Your task to perform on an android device: Go to display settings Image 0: 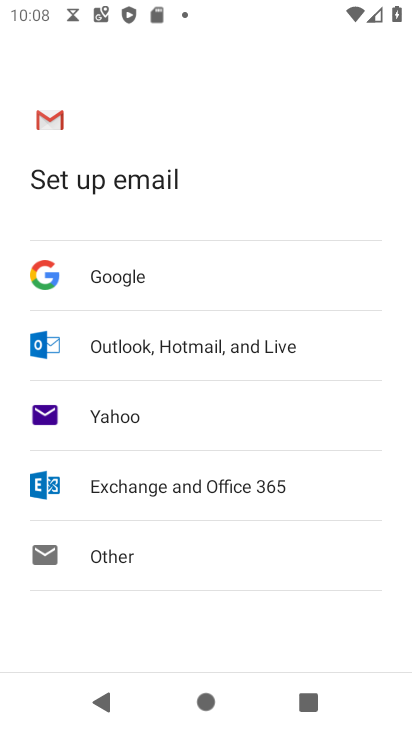
Step 0: press home button
Your task to perform on an android device: Go to display settings Image 1: 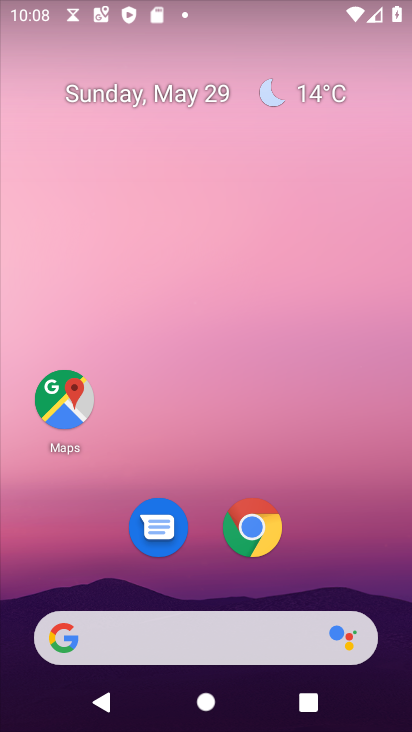
Step 1: click (320, 137)
Your task to perform on an android device: Go to display settings Image 2: 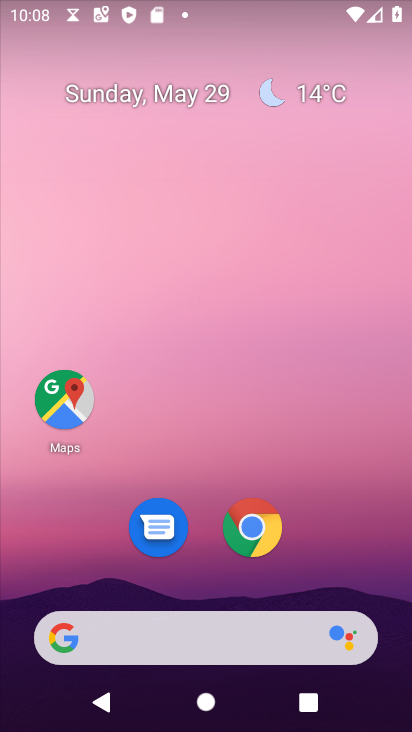
Step 2: drag from (225, 628) to (298, 77)
Your task to perform on an android device: Go to display settings Image 3: 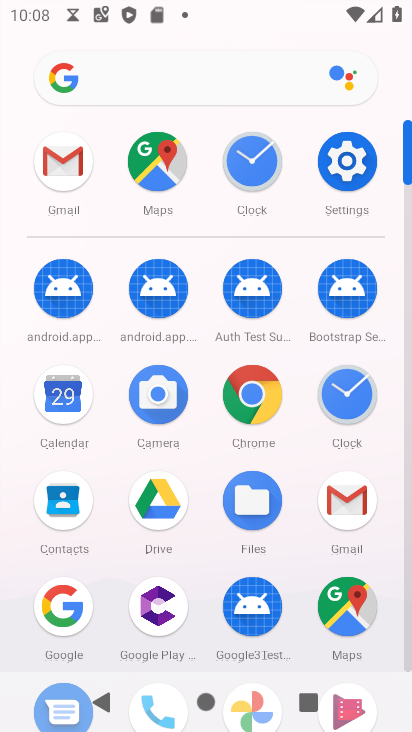
Step 3: click (346, 164)
Your task to perform on an android device: Go to display settings Image 4: 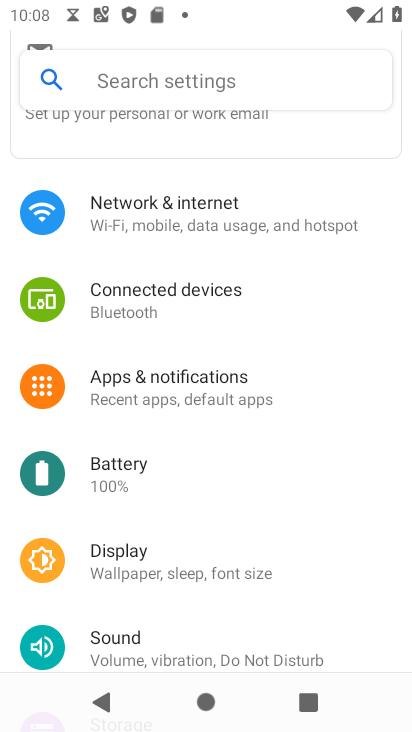
Step 4: click (134, 555)
Your task to perform on an android device: Go to display settings Image 5: 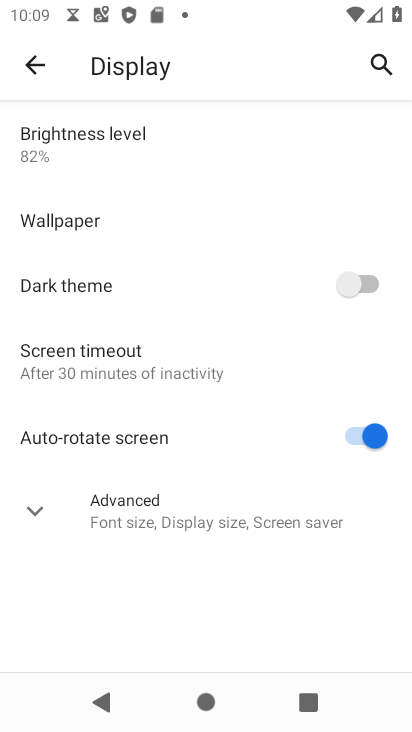
Step 5: task complete